Your task to perform on an android device: Search for "razer kraken" on bestbuy.com, select the first entry, and add it to the cart. Image 0: 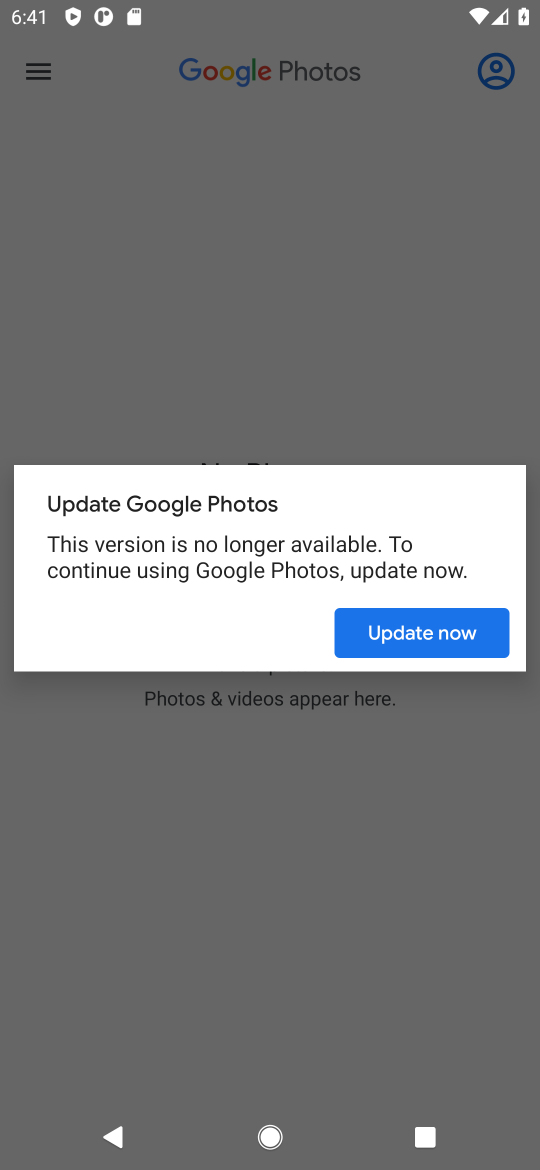
Step 0: press home button
Your task to perform on an android device: Search for "razer kraken" on bestbuy.com, select the first entry, and add it to the cart. Image 1: 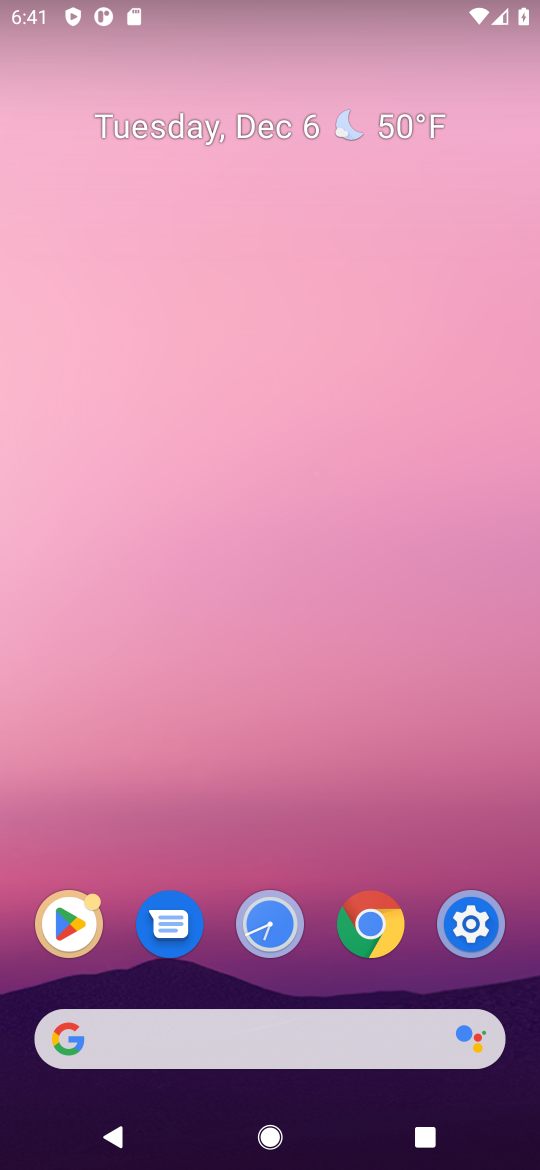
Step 1: click (236, 1060)
Your task to perform on an android device: Search for "razer kraken" on bestbuy.com, select the first entry, and add it to the cart. Image 2: 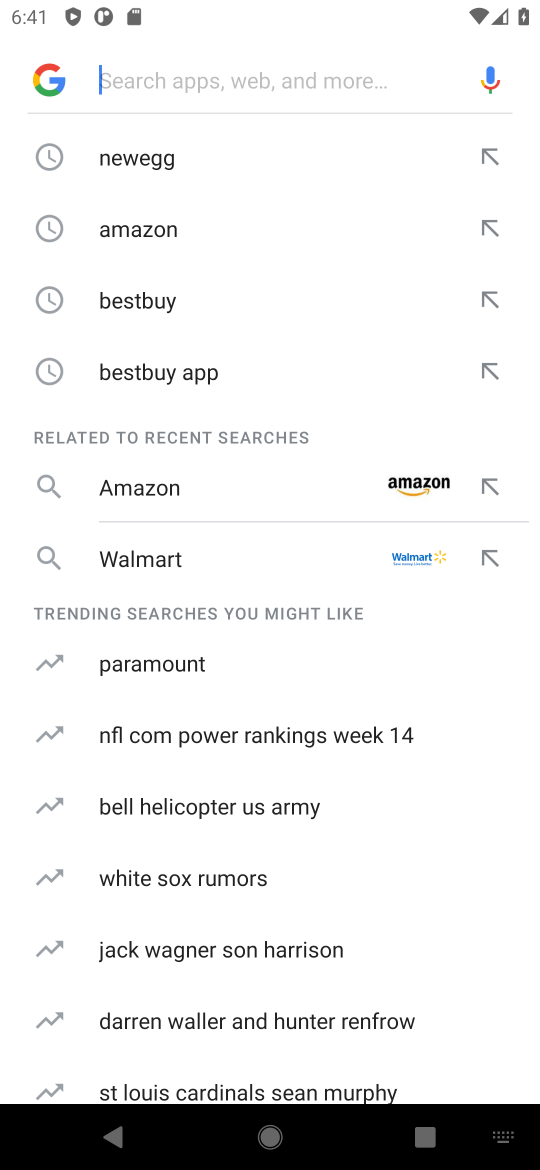
Step 2: click (164, 298)
Your task to perform on an android device: Search for "razer kraken" on bestbuy.com, select the first entry, and add it to the cart. Image 3: 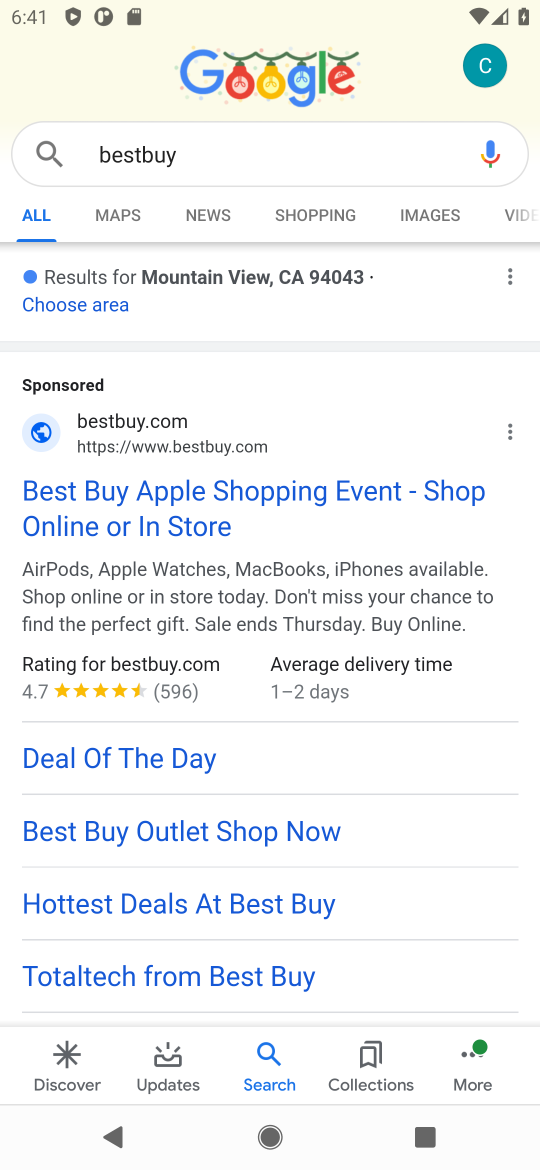
Step 3: click (137, 492)
Your task to perform on an android device: Search for "razer kraken" on bestbuy.com, select the first entry, and add it to the cart. Image 4: 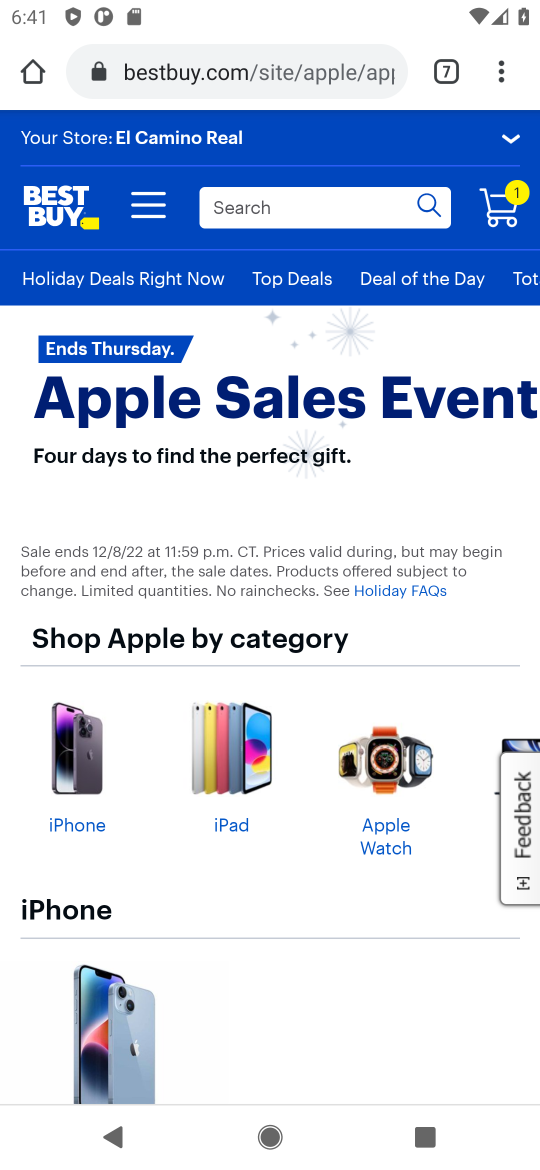
Step 4: click (326, 203)
Your task to perform on an android device: Search for "razer kraken" on bestbuy.com, select the first entry, and add it to the cart. Image 5: 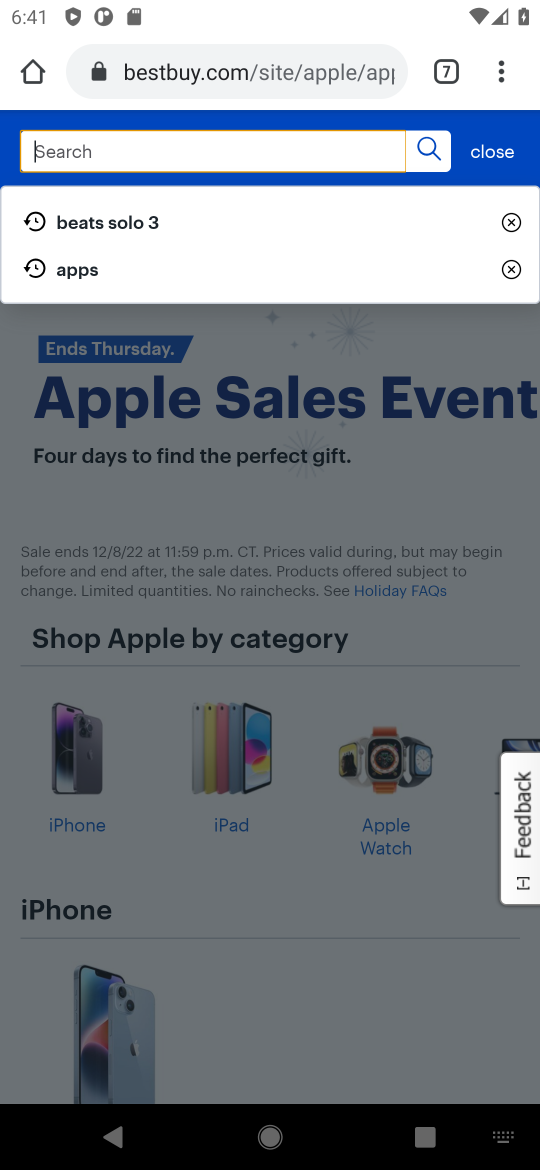
Step 5: type "razer karken"
Your task to perform on an android device: Search for "razer kraken" on bestbuy.com, select the first entry, and add it to the cart. Image 6: 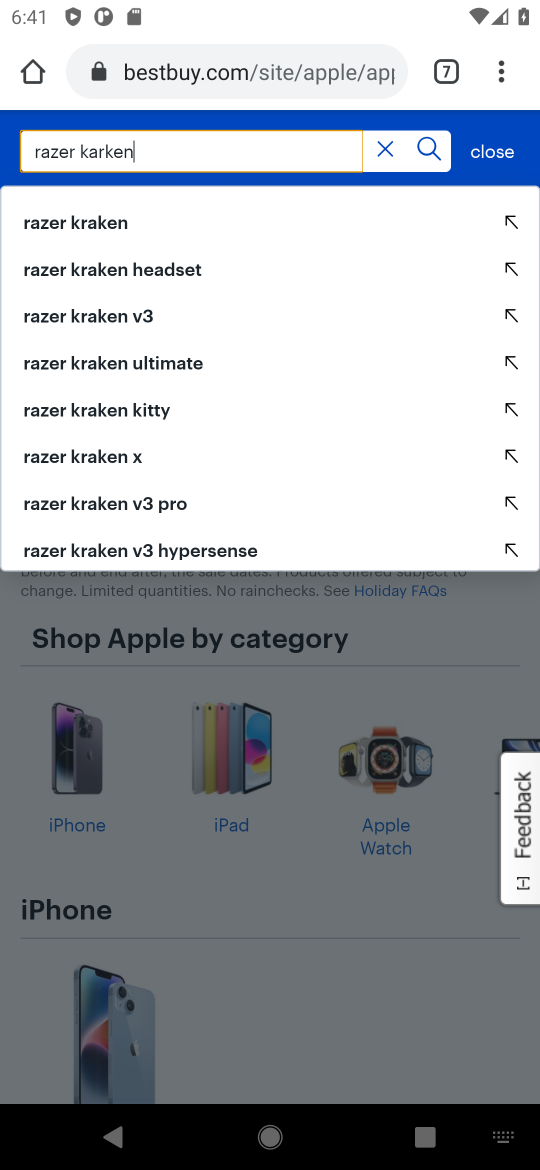
Step 6: click (128, 228)
Your task to perform on an android device: Search for "razer kraken" on bestbuy.com, select the first entry, and add it to the cart. Image 7: 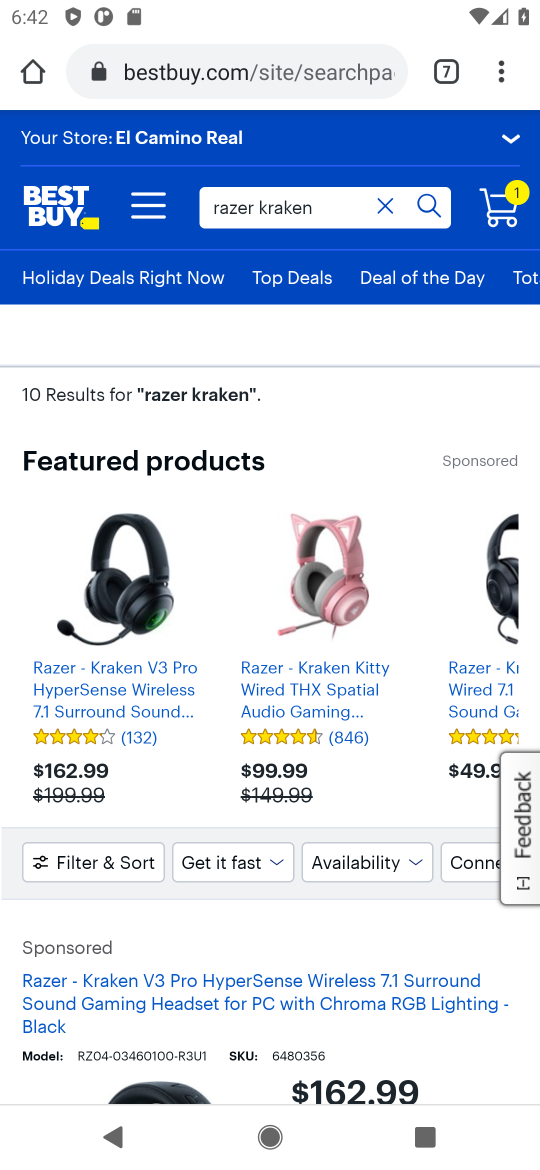
Step 7: drag from (347, 926) to (250, 246)
Your task to perform on an android device: Search for "razer kraken" on bestbuy.com, select the first entry, and add it to the cart. Image 8: 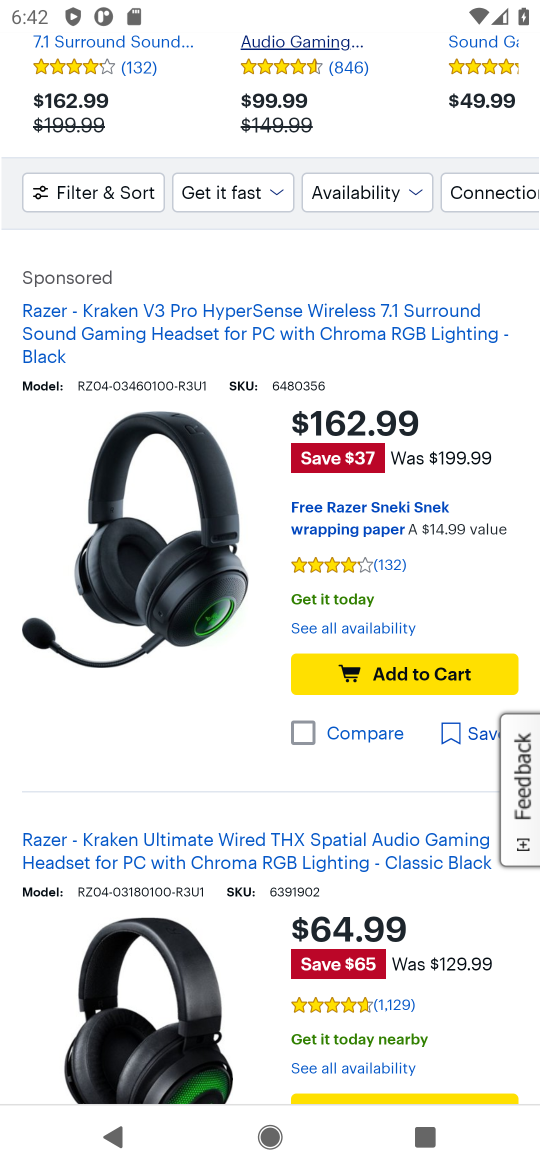
Step 8: click (387, 672)
Your task to perform on an android device: Search for "razer kraken" on bestbuy.com, select the first entry, and add it to the cart. Image 9: 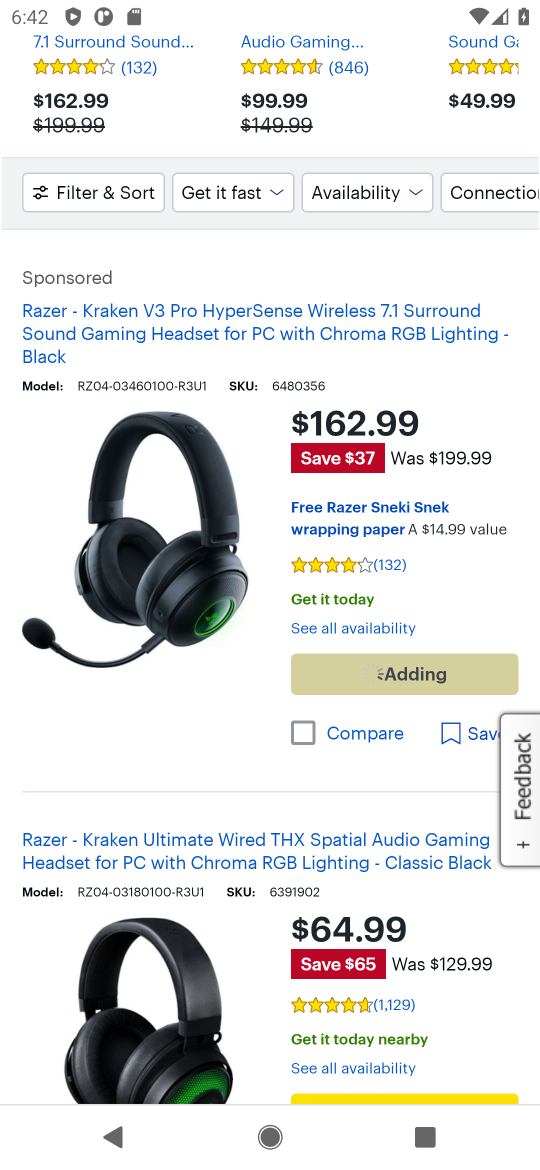
Step 9: task complete